Your task to perform on an android device: Turn on the flashlight Image 0: 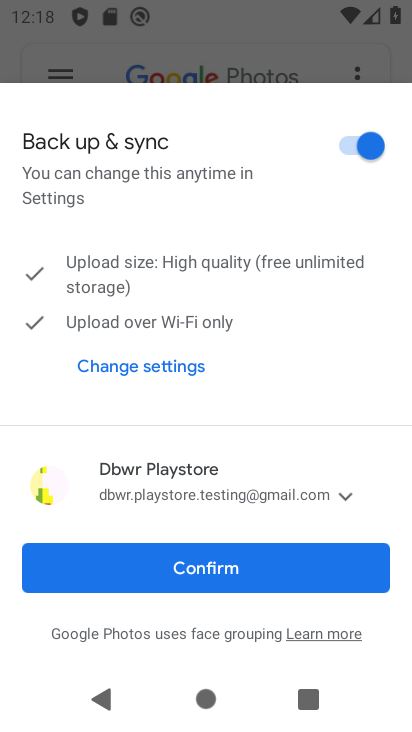
Step 0: drag from (187, 11) to (8, 459)
Your task to perform on an android device: Turn on the flashlight Image 1: 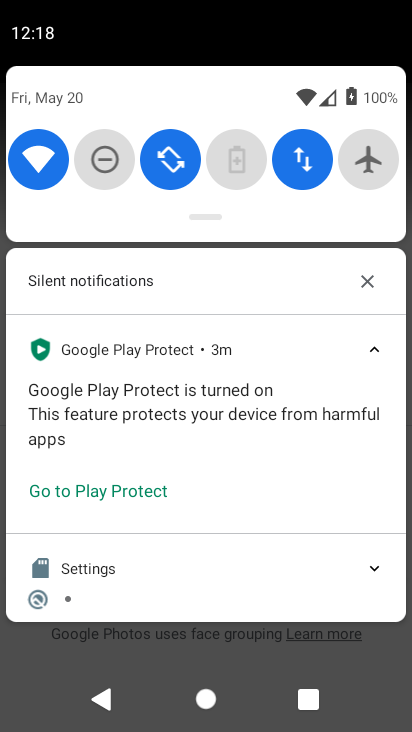
Step 1: drag from (191, 114) to (216, 606)
Your task to perform on an android device: Turn on the flashlight Image 2: 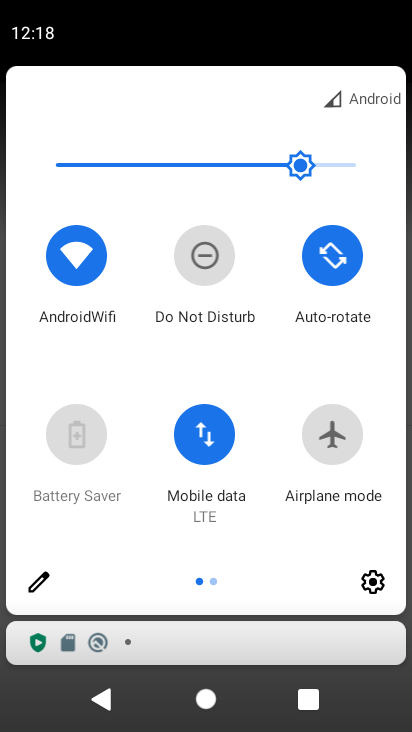
Step 2: click (369, 583)
Your task to perform on an android device: Turn on the flashlight Image 3: 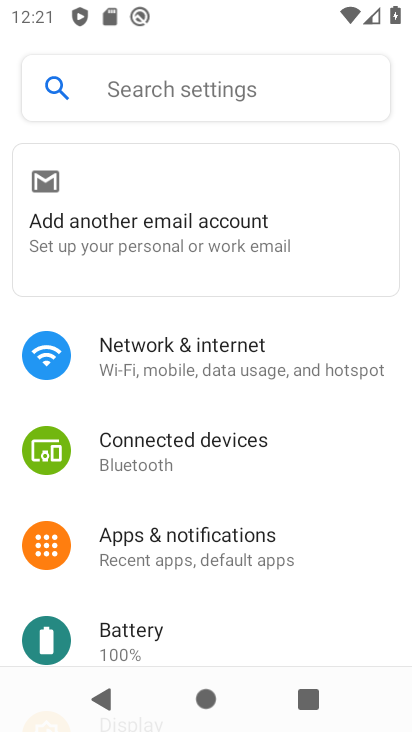
Step 3: task complete